Your task to perform on an android device: Turn on the flashlight Image 0: 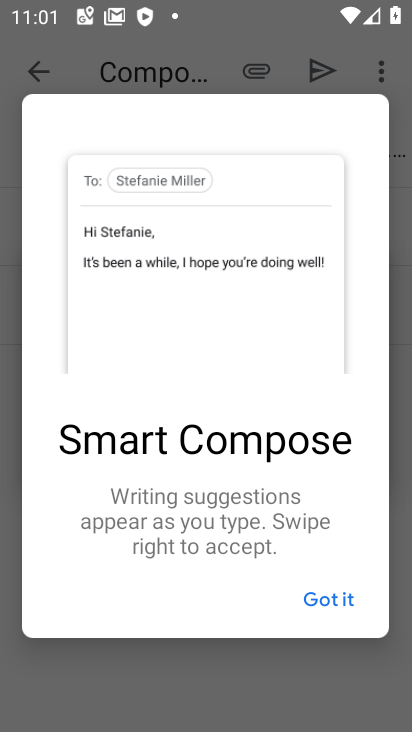
Step 0: press home button
Your task to perform on an android device: Turn on the flashlight Image 1: 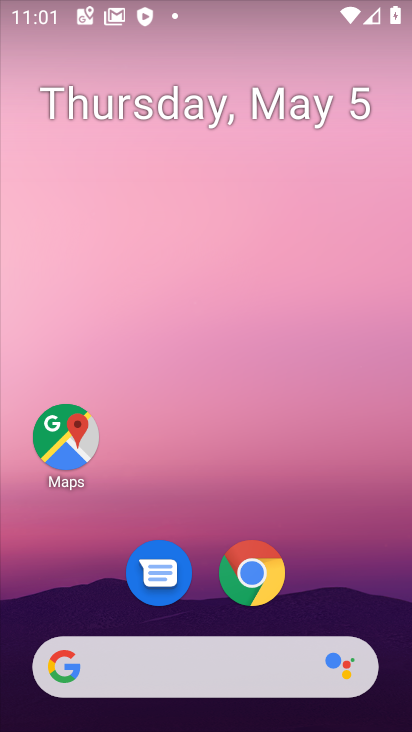
Step 1: drag from (307, 606) to (352, 143)
Your task to perform on an android device: Turn on the flashlight Image 2: 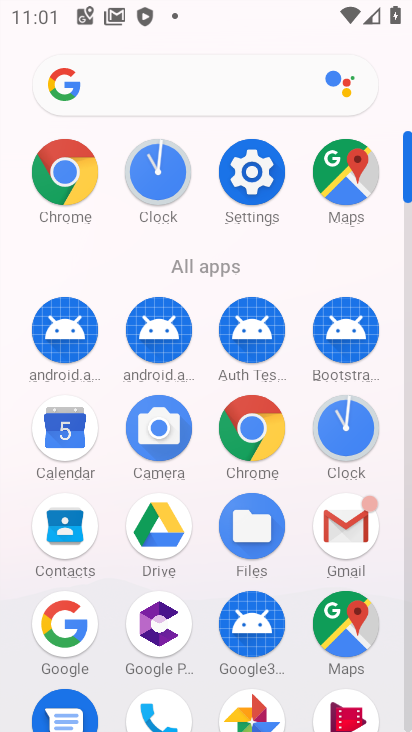
Step 2: click (243, 180)
Your task to perform on an android device: Turn on the flashlight Image 3: 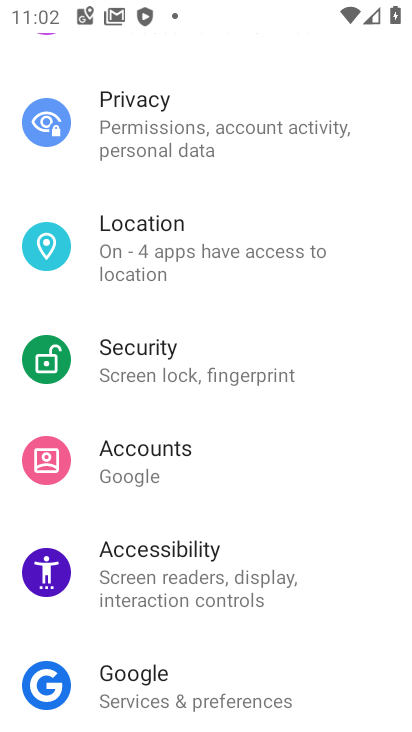
Step 3: task complete